Your task to perform on an android device: What's the weather today? Image 0: 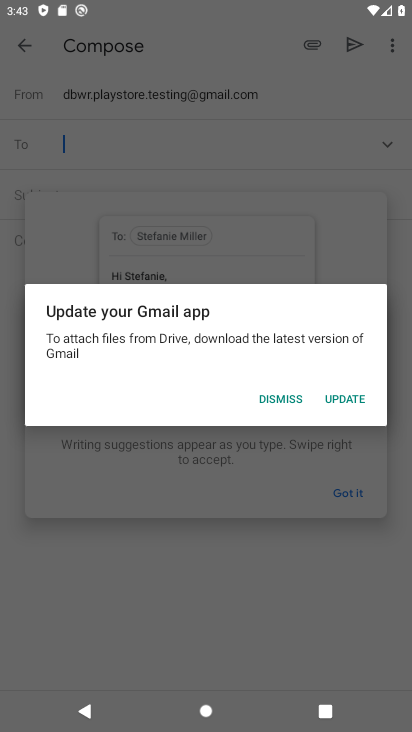
Step 0: press home button
Your task to perform on an android device: What's the weather today? Image 1: 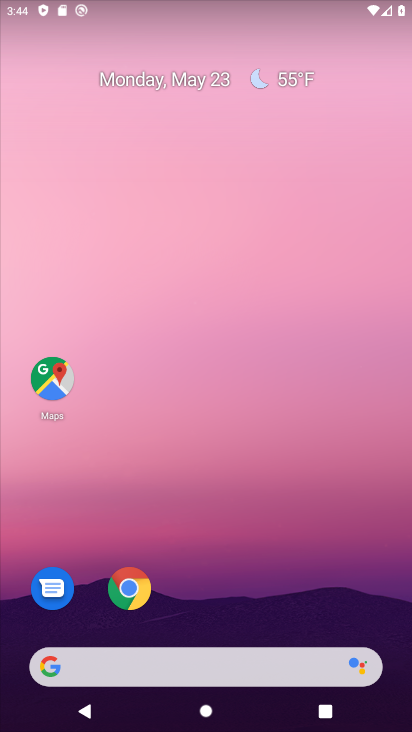
Step 1: drag from (197, 575) to (215, 75)
Your task to perform on an android device: What's the weather today? Image 2: 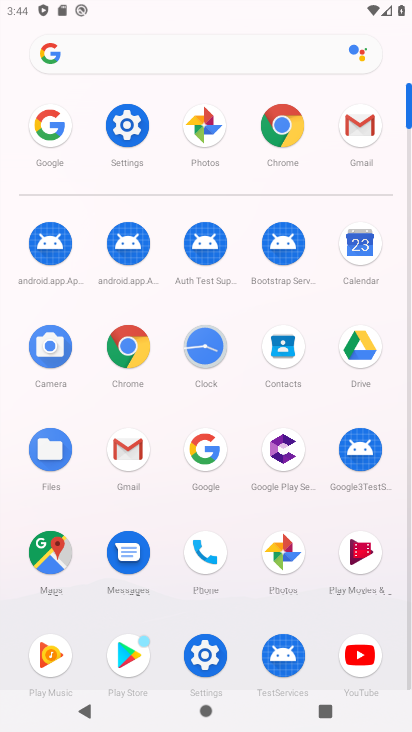
Step 2: click (49, 124)
Your task to perform on an android device: What's the weather today? Image 3: 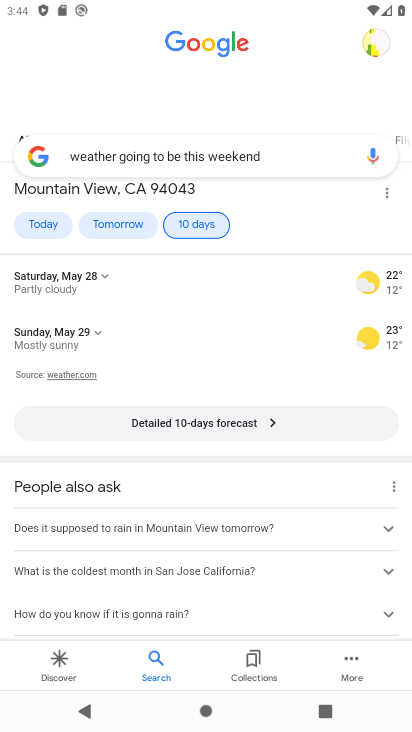
Step 3: click (340, 155)
Your task to perform on an android device: What's the weather today? Image 4: 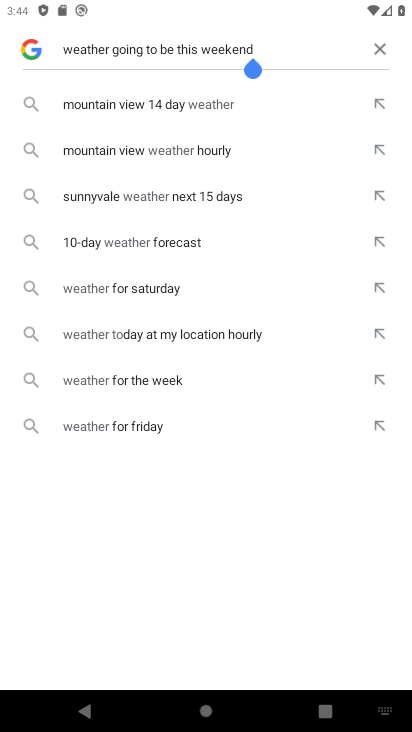
Step 4: click (382, 46)
Your task to perform on an android device: What's the weather today? Image 5: 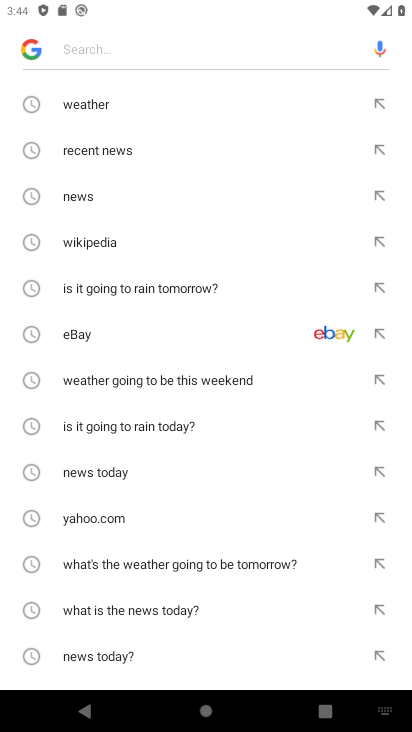
Step 5: type "weather today"
Your task to perform on an android device: What's the weather today? Image 6: 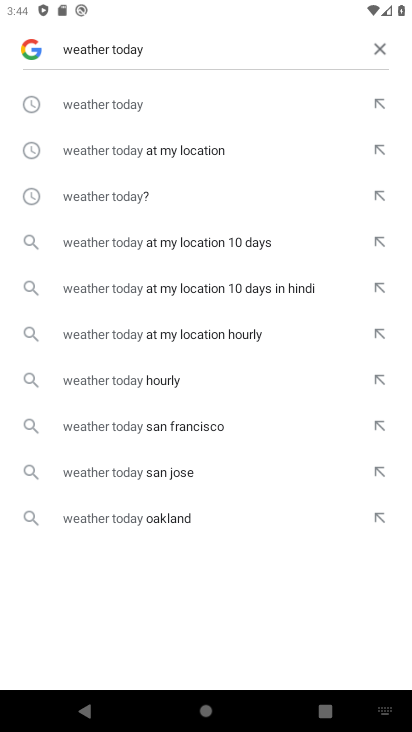
Step 6: click (143, 97)
Your task to perform on an android device: What's the weather today? Image 7: 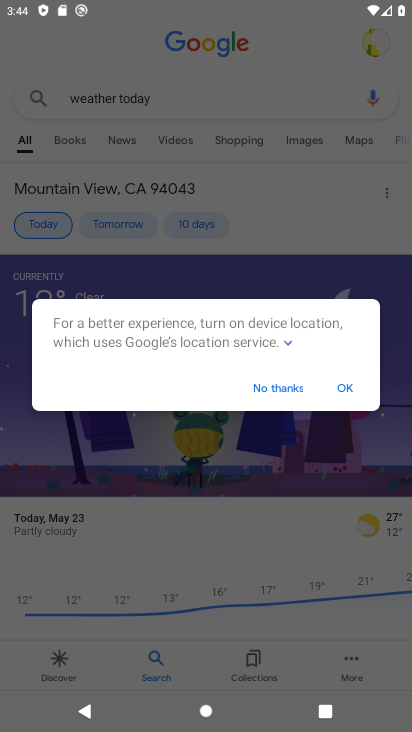
Step 7: click (273, 389)
Your task to perform on an android device: What's the weather today? Image 8: 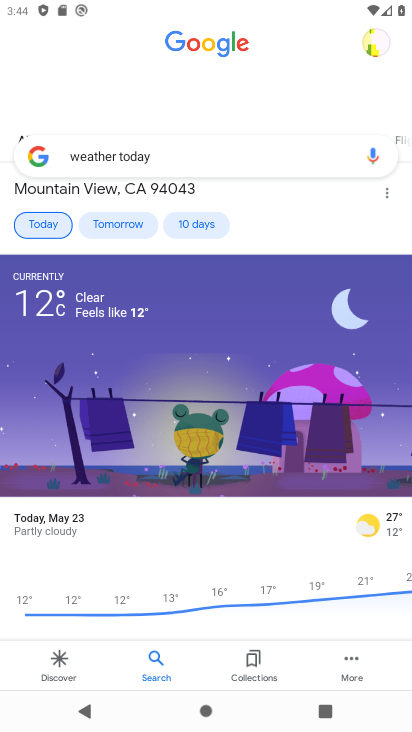
Step 8: task complete